Your task to perform on an android device: stop showing notifications on the lock screen Image 0: 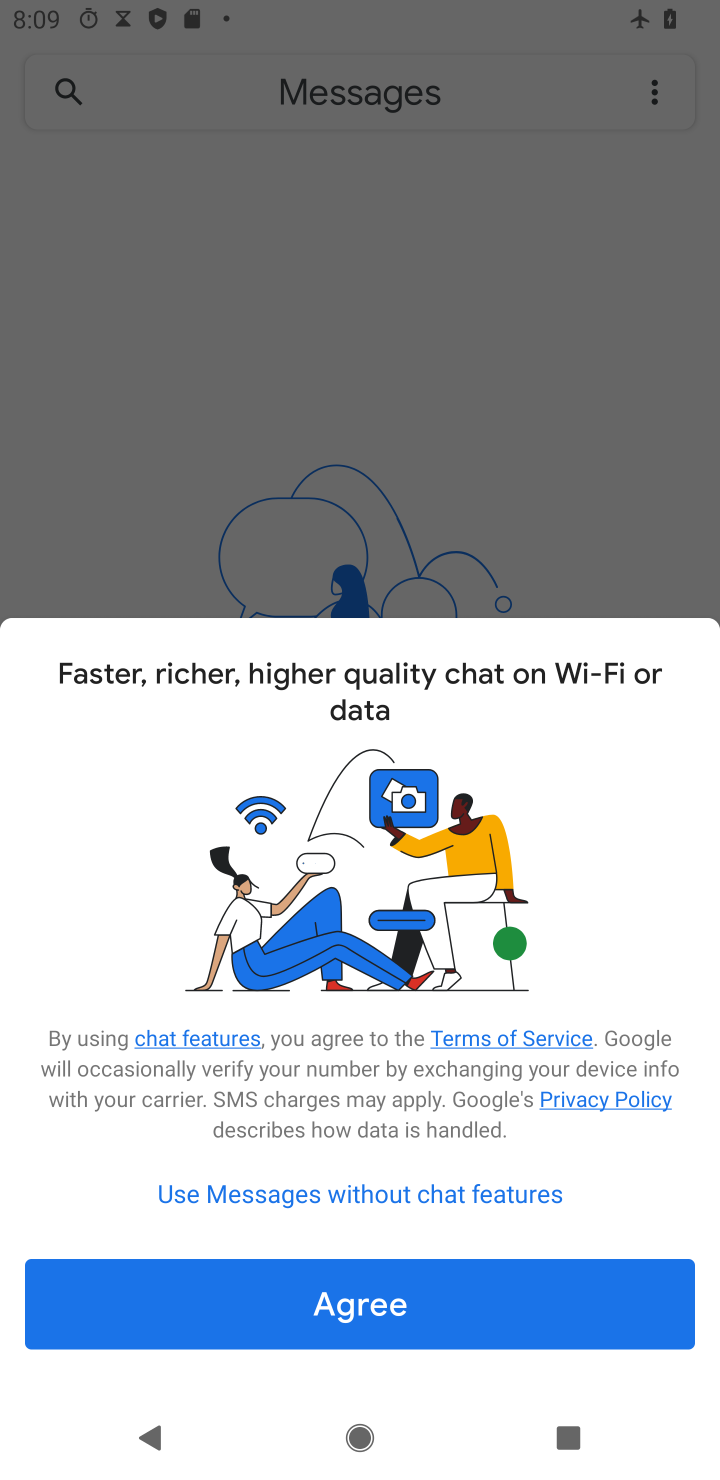
Step 0: press home button
Your task to perform on an android device: stop showing notifications on the lock screen Image 1: 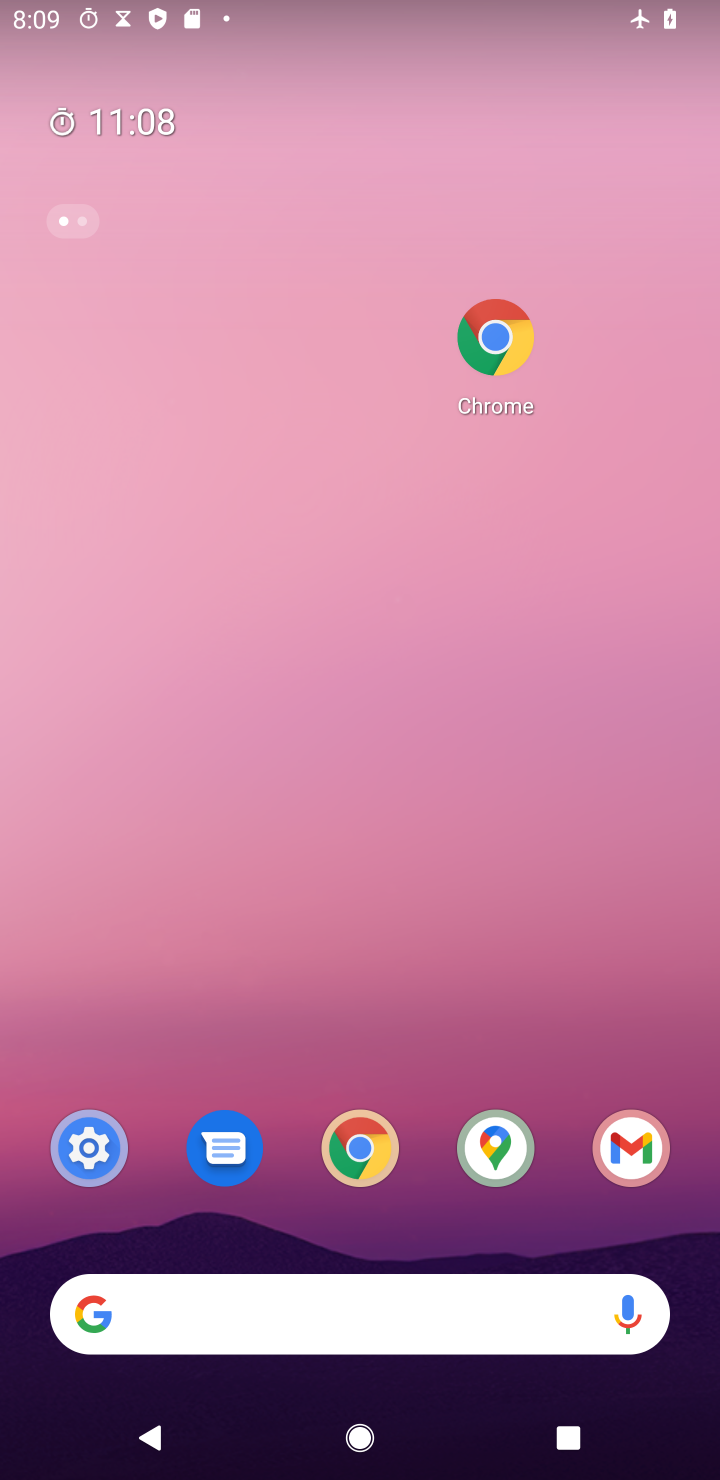
Step 1: click (91, 1138)
Your task to perform on an android device: stop showing notifications on the lock screen Image 2: 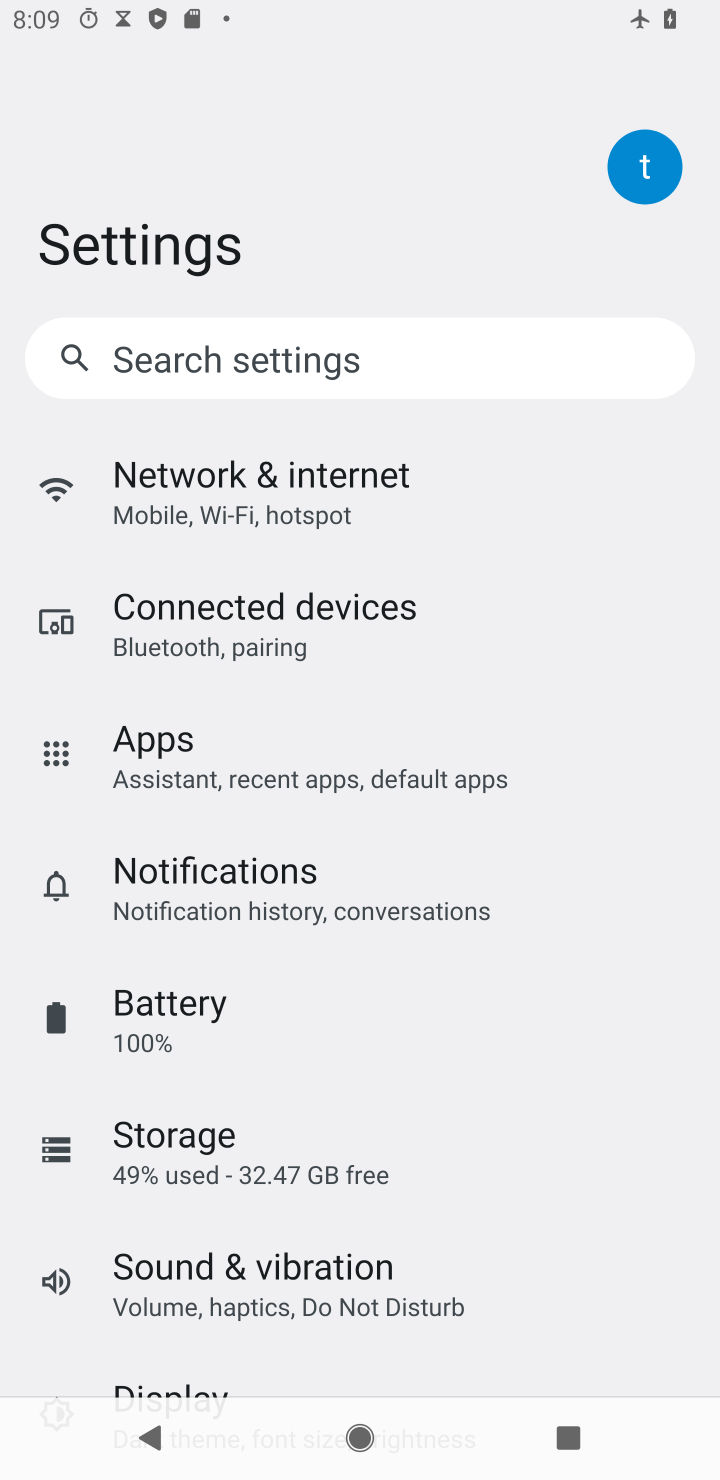
Step 2: click (477, 898)
Your task to perform on an android device: stop showing notifications on the lock screen Image 3: 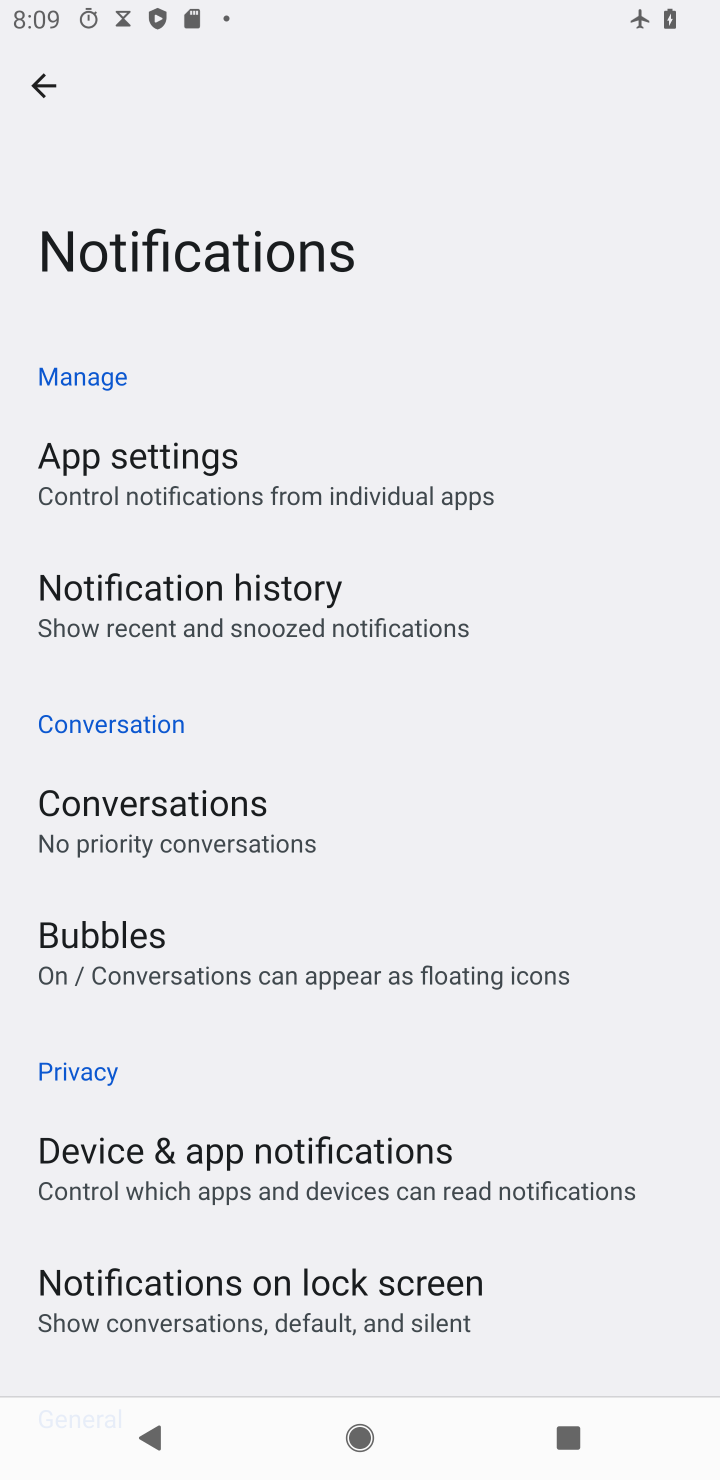
Step 3: click (514, 1319)
Your task to perform on an android device: stop showing notifications on the lock screen Image 4: 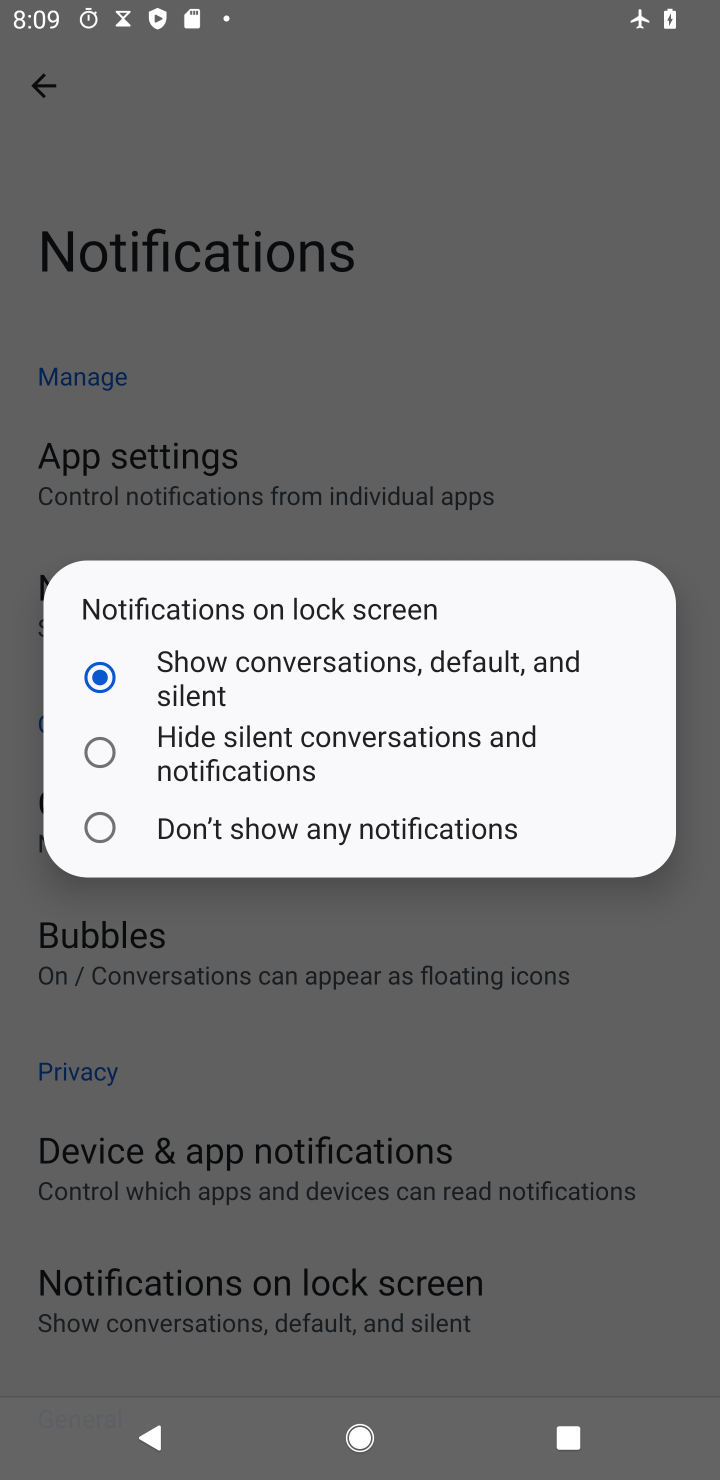
Step 4: click (418, 832)
Your task to perform on an android device: stop showing notifications on the lock screen Image 5: 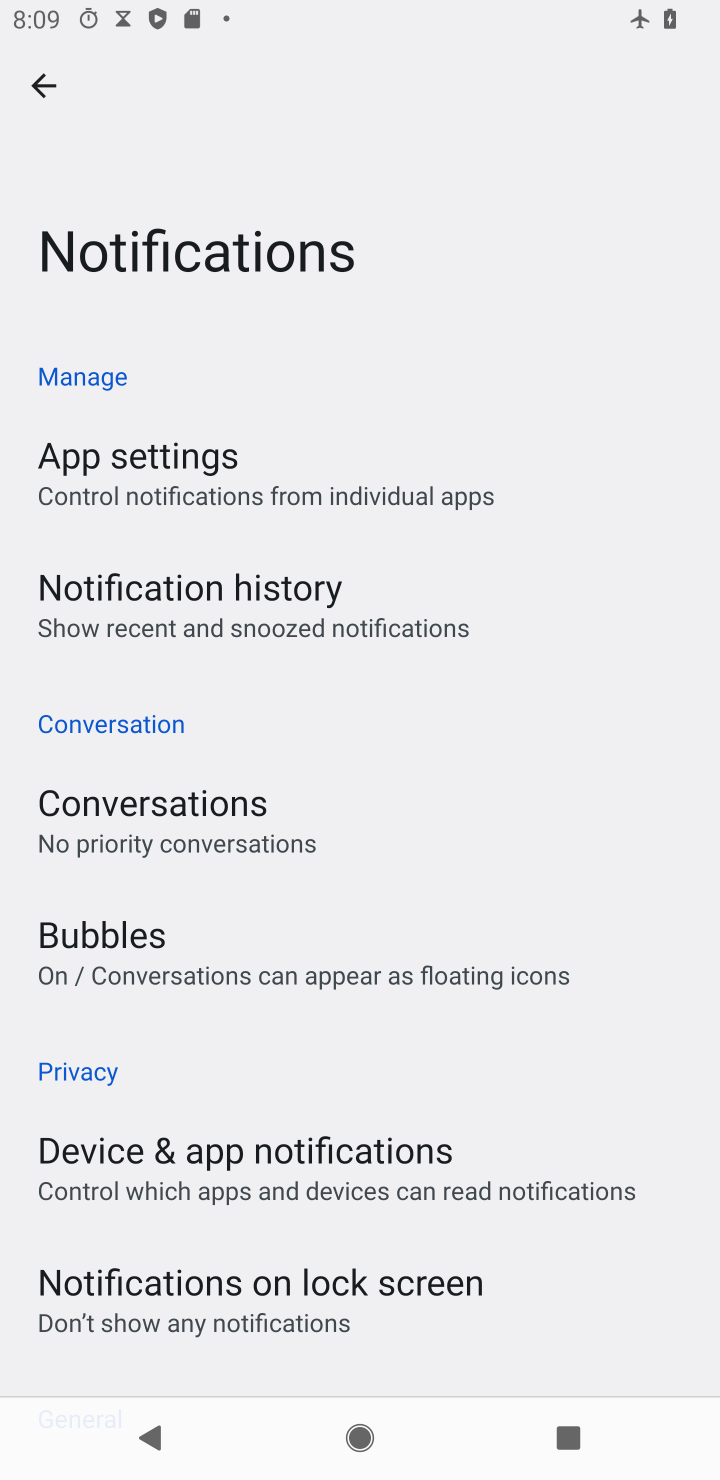
Step 5: task complete